Your task to perform on an android device: toggle wifi Image 0: 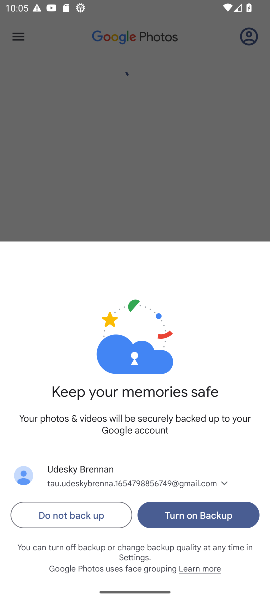
Step 0: press home button
Your task to perform on an android device: toggle wifi Image 1: 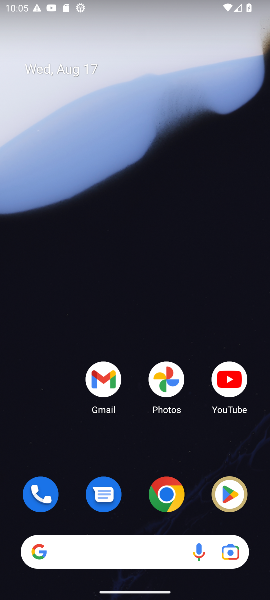
Step 1: drag from (123, 5) to (92, 451)
Your task to perform on an android device: toggle wifi Image 2: 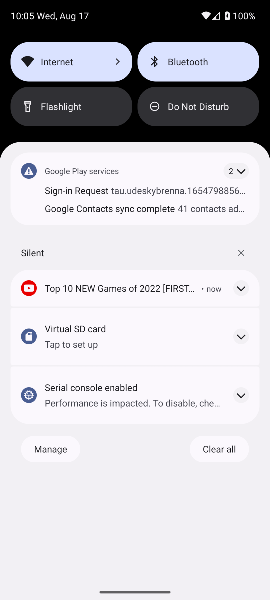
Step 2: click (28, 55)
Your task to perform on an android device: toggle wifi Image 3: 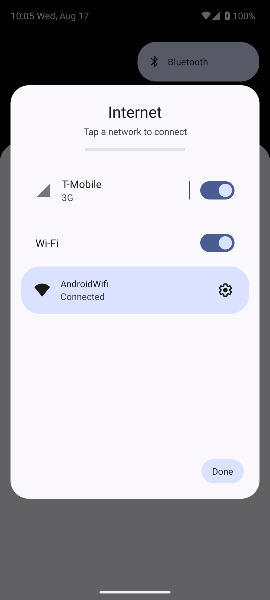
Step 3: click (217, 238)
Your task to perform on an android device: toggle wifi Image 4: 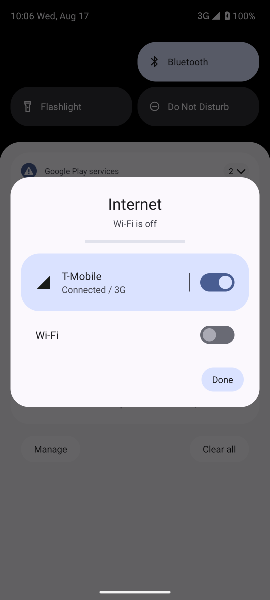
Step 4: task complete